Your task to perform on an android device: Search for pizza restaurants on Maps Image 0: 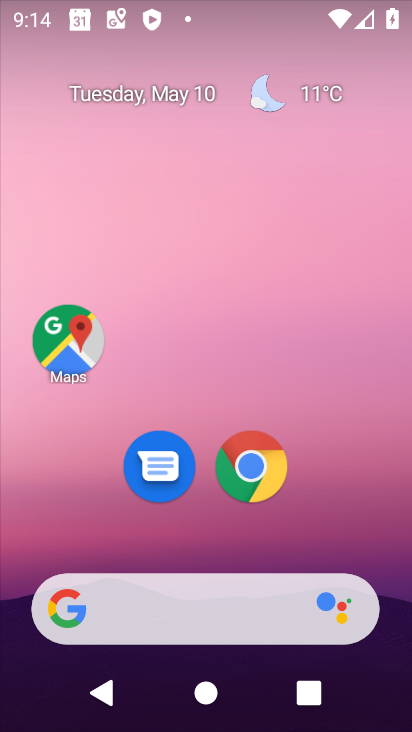
Step 0: drag from (366, 510) to (273, 96)
Your task to perform on an android device: Search for pizza restaurants on Maps Image 1: 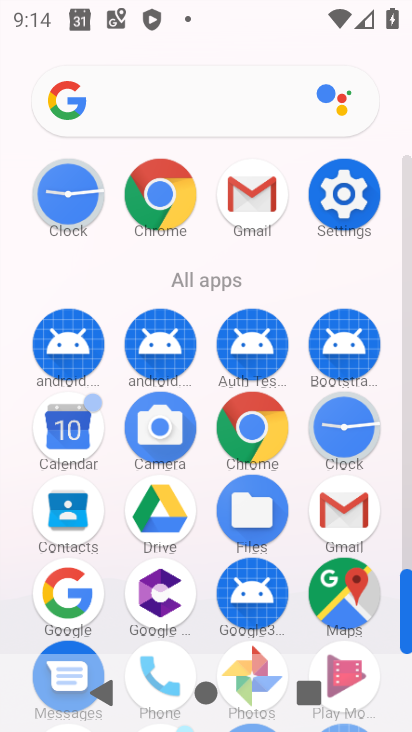
Step 1: click (347, 585)
Your task to perform on an android device: Search for pizza restaurants on Maps Image 2: 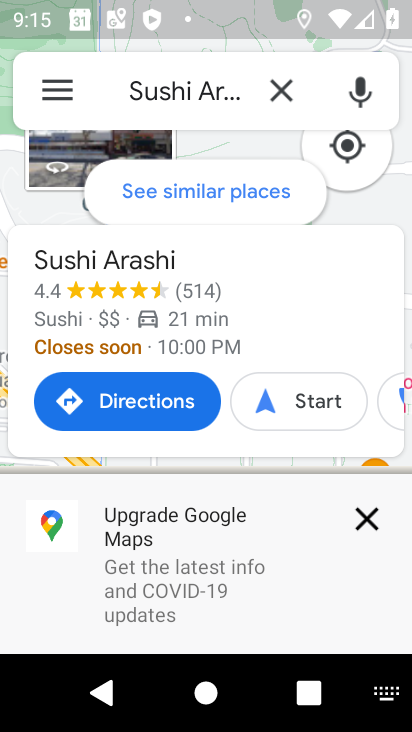
Step 2: click (296, 90)
Your task to perform on an android device: Search for pizza restaurants on Maps Image 3: 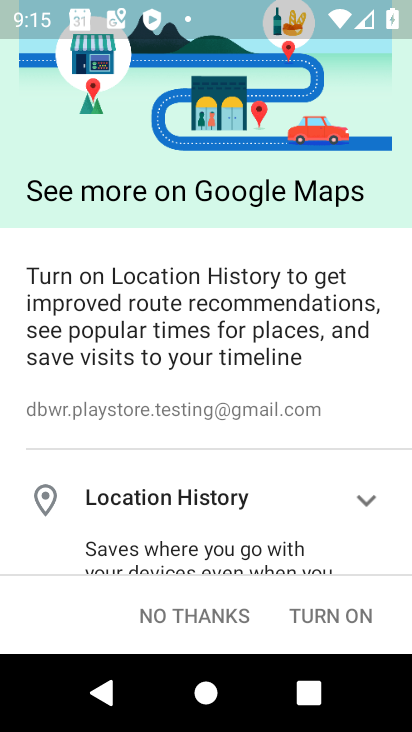
Step 3: click (195, 597)
Your task to perform on an android device: Search for pizza restaurants on Maps Image 4: 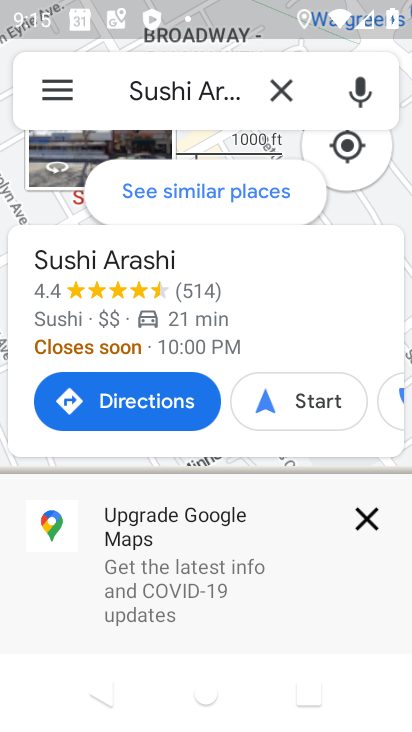
Step 4: click (274, 81)
Your task to perform on an android device: Search for pizza restaurants on Maps Image 5: 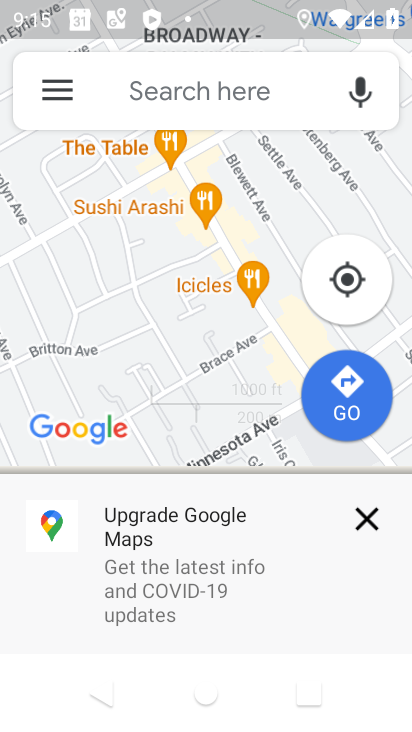
Step 5: click (274, 81)
Your task to perform on an android device: Search for pizza restaurants on Maps Image 6: 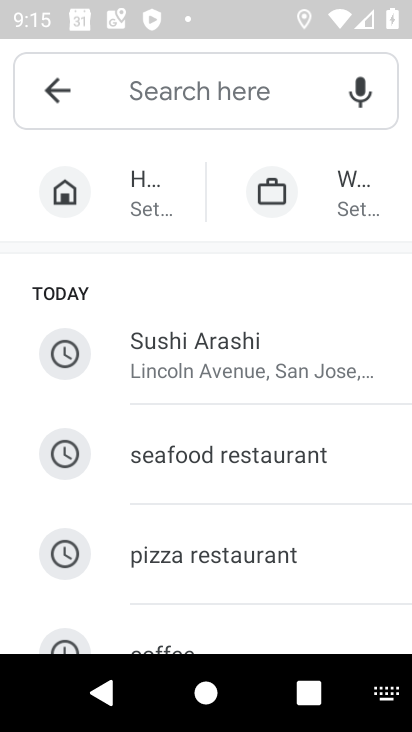
Step 6: click (215, 561)
Your task to perform on an android device: Search for pizza restaurants on Maps Image 7: 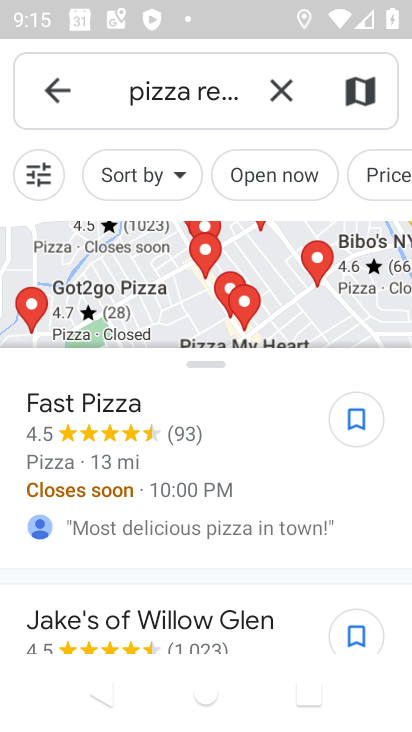
Step 7: task complete